Your task to perform on an android device: turn off wifi Image 0: 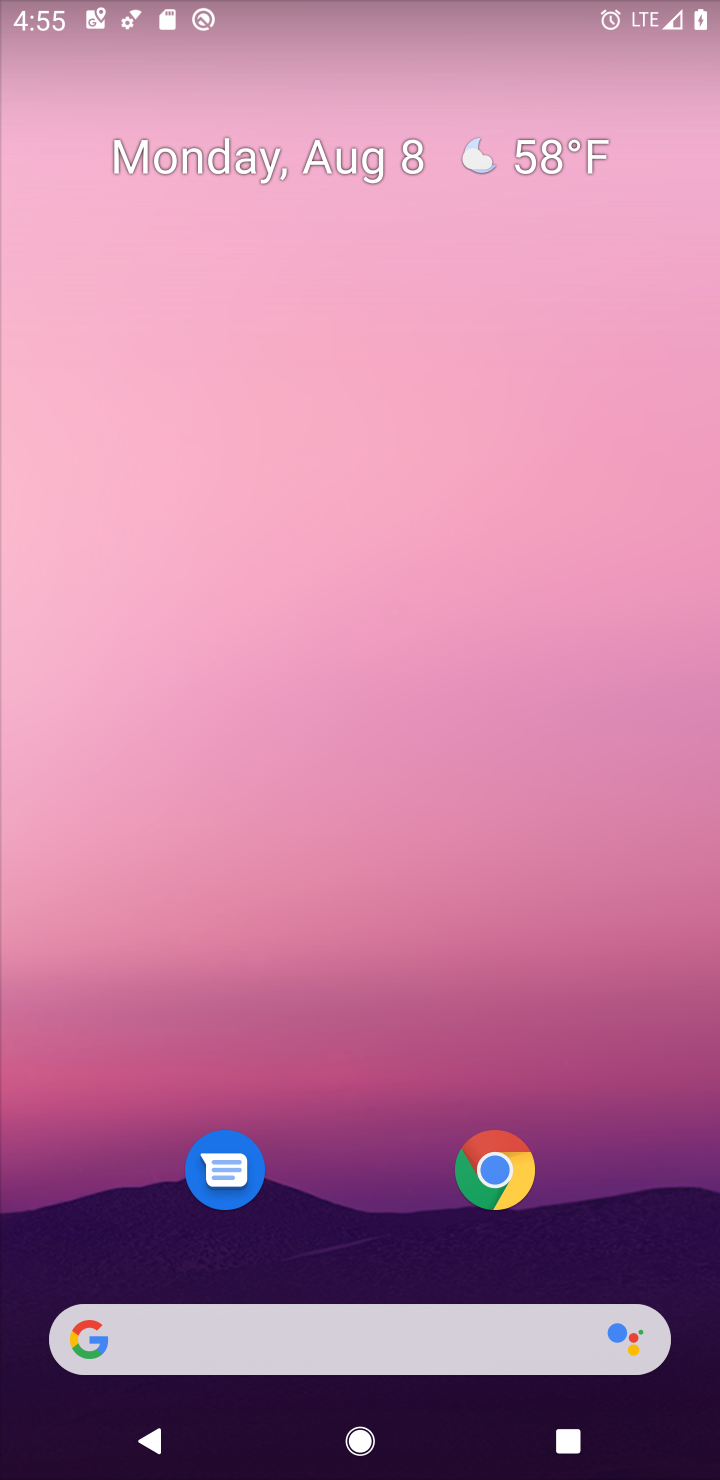
Step 0: drag from (367, 1173) to (370, 380)
Your task to perform on an android device: turn off wifi Image 1: 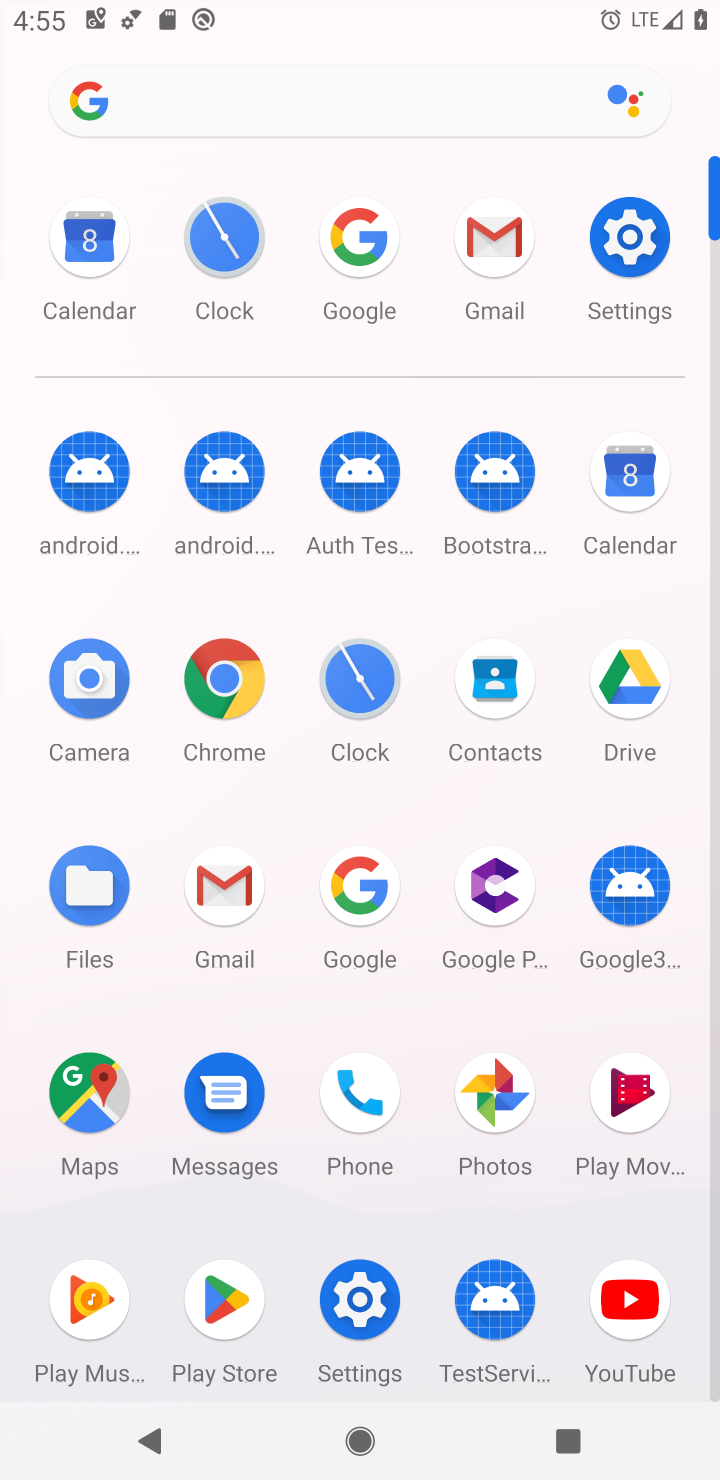
Step 1: click (632, 270)
Your task to perform on an android device: turn off wifi Image 2: 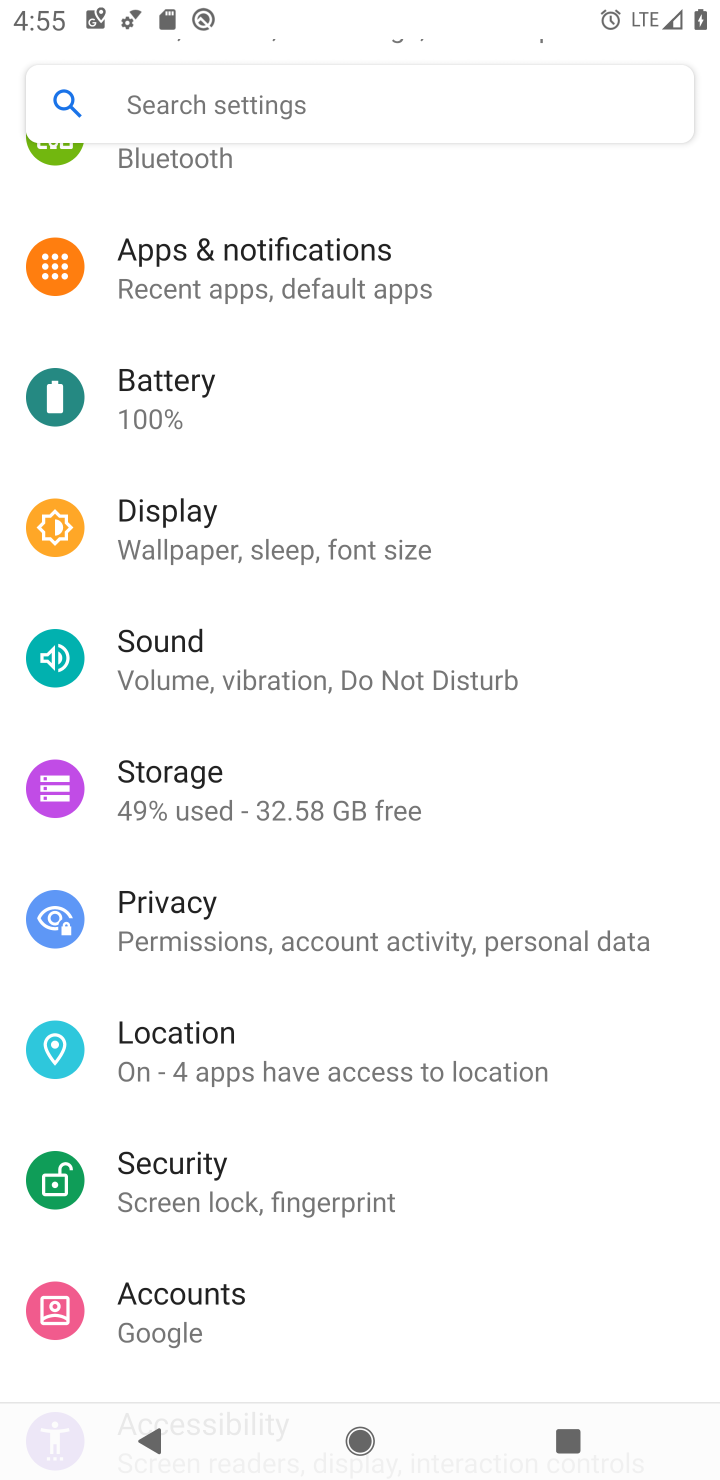
Step 2: drag from (408, 395) to (517, 1112)
Your task to perform on an android device: turn off wifi Image 3: 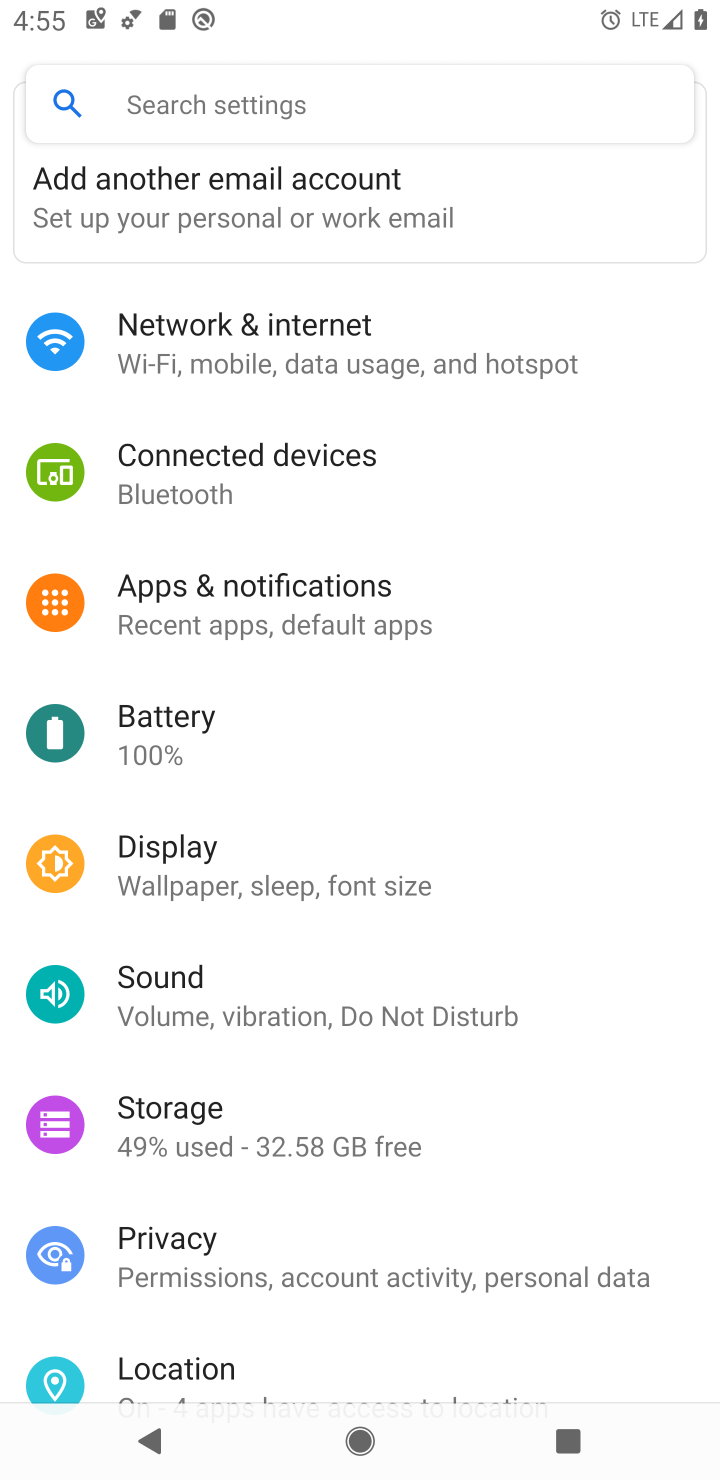
Step 3: click (230, 385)
Your task to perform on an android device: turn off wifi Image 4: 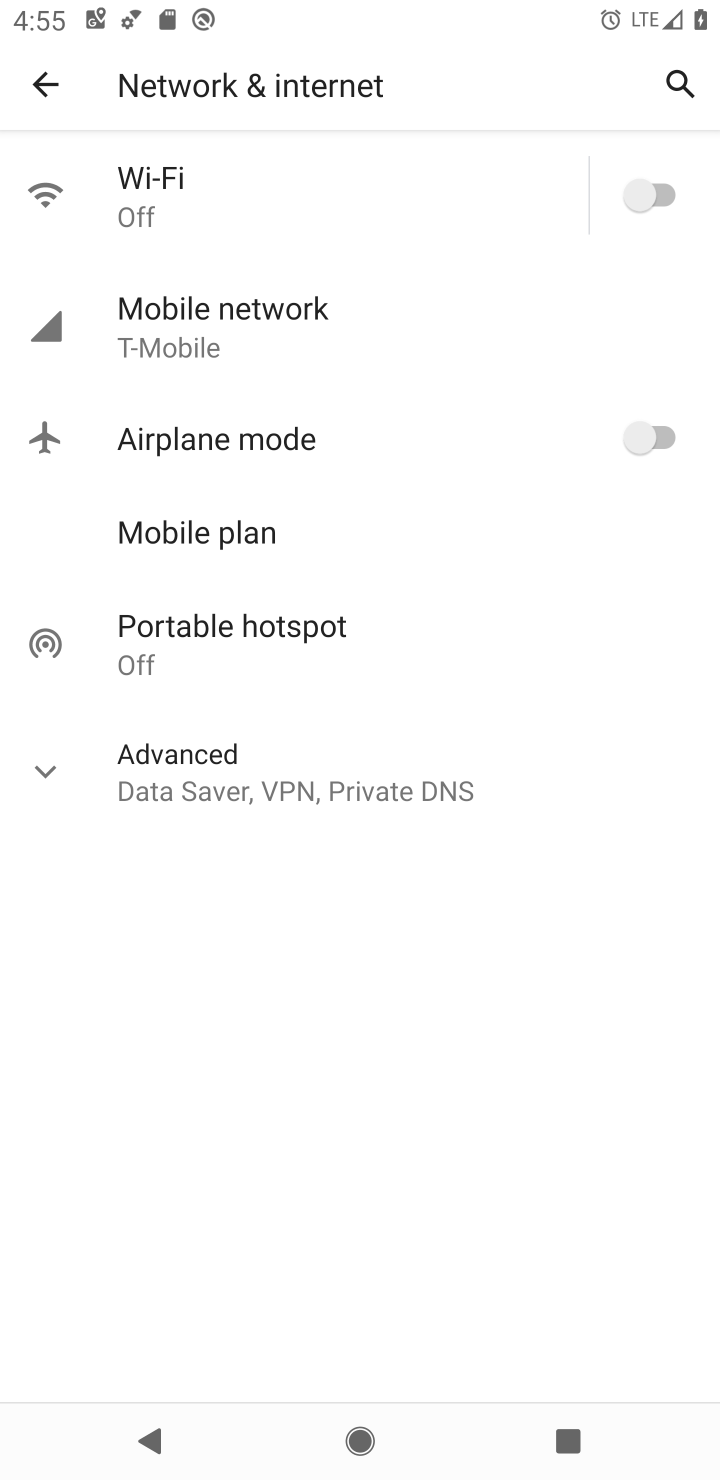
Step 4: click (201, 196)
Your task to perform on an android device: turn off wifi Image 5: 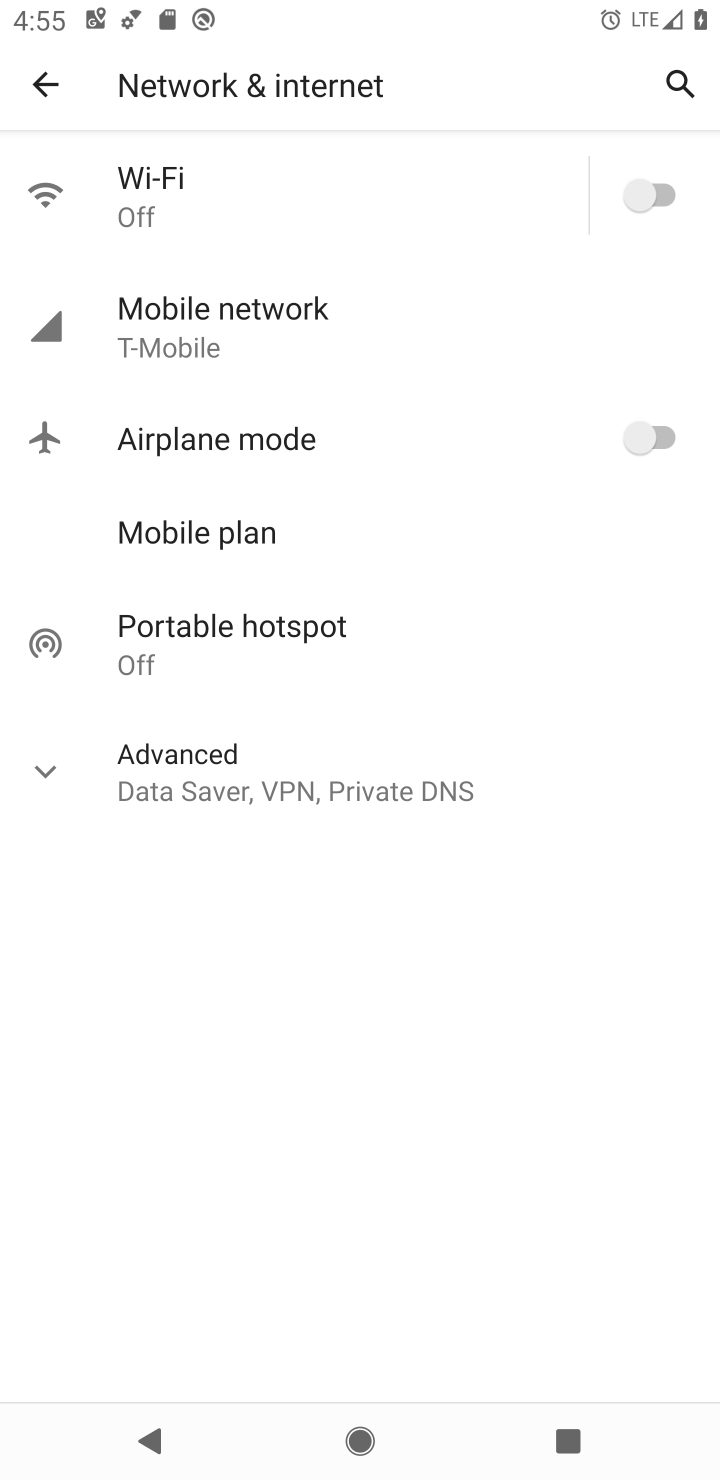
Step 5: task complete